Your task to perform on an android device: turn off location Image 0: 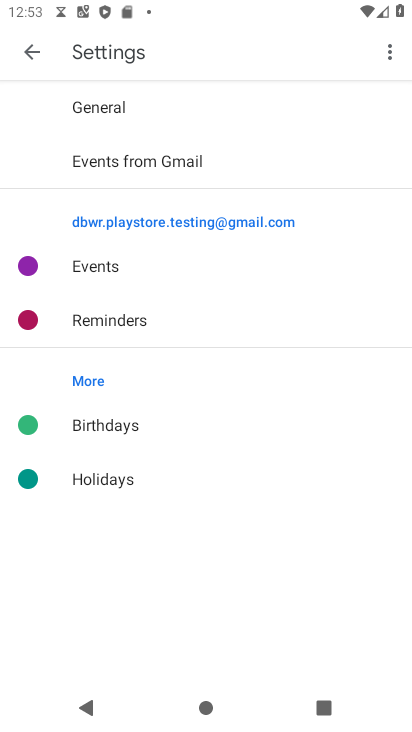
Step 0: press home button
Your task to perform on an android device: turn off location Image 1: 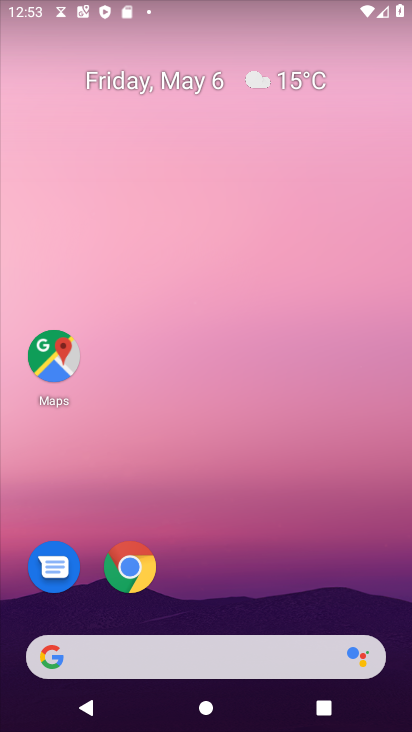
Step 1: drag from (315, 415) to (312, 19)
Your task to perform on an android device: turn off location Image 2: 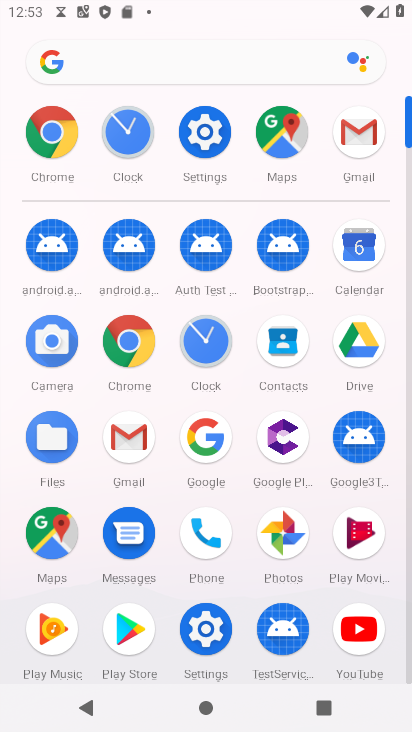
Step 2: click (195, 138)
Your task to perform on an android device: turn off location Image 3: 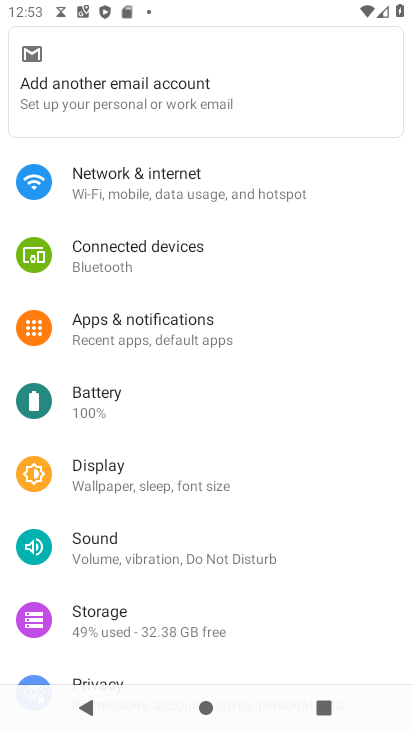
Step 3: drag from (190, 615) to (244, 234)
Your task to perform on an android device: turn off location Image 4: 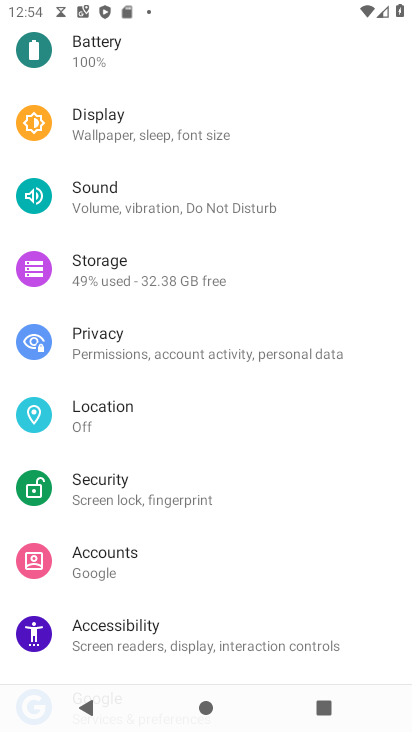
Step 4: click (105, 412)
Your task to perform on an android device: turn off location Image 5: 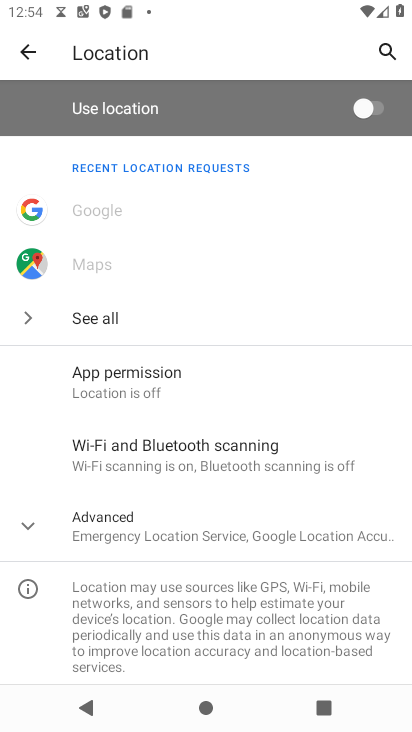
Step 5: task complete